Your task to perform on an android device: change alarm snooze length Image 0: 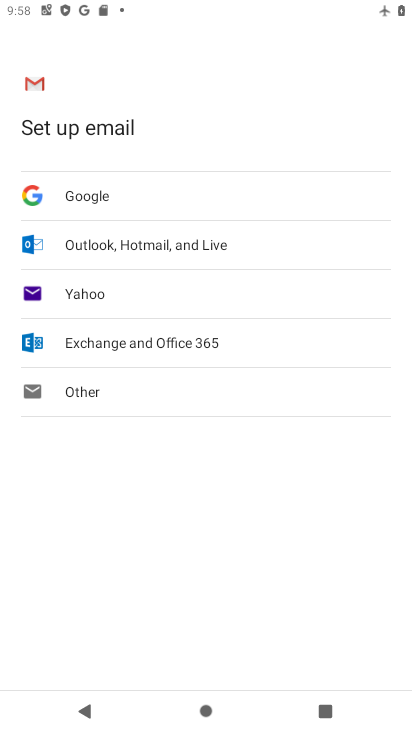
Step 0: press home button
Your task to perform on an android device: change alarm snooze length Image 1: 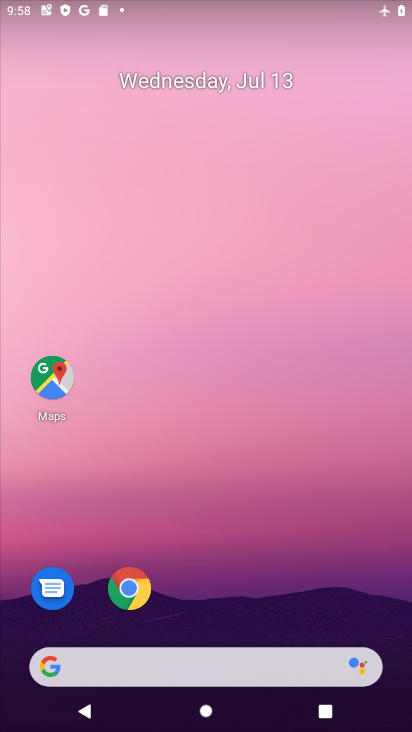
Step 1: drag from (237, 436) to (263, 106)
Your task to perform on an android device: change alarm snooze length Image 2: 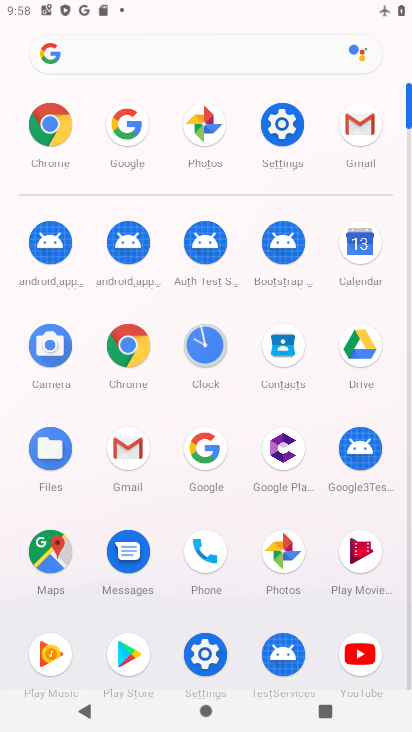
Step 2: click (210, 342)
Your task to perform on an android device: change alarm snooze length Image 3: 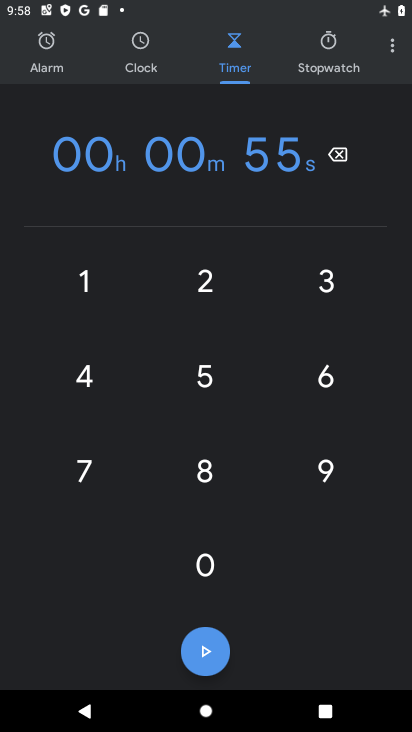
Step 3: click (390, 43)
Your task to perform on an android device: change alarm snooze length Image 4: 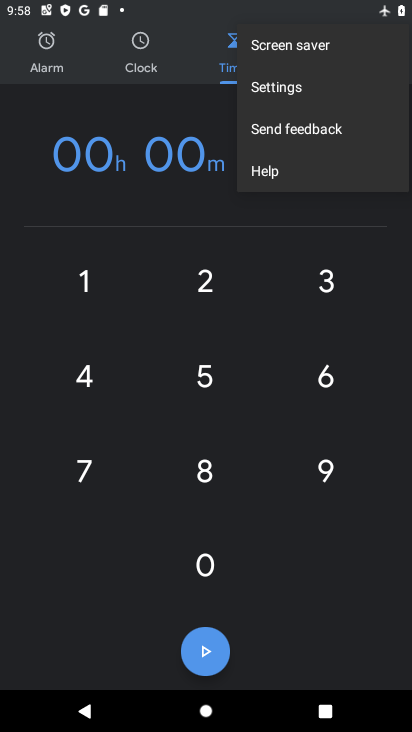
Step 4: click (274, 87)
Your task to perform on an android device: change alarm snooze length Image 5: 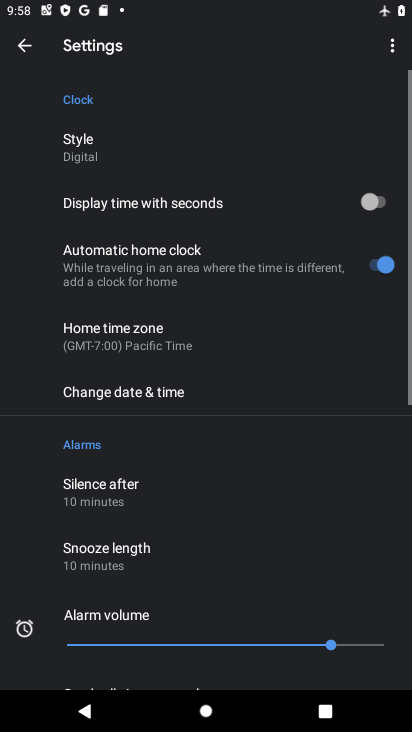
Step 5: click (148, 569)
Your task to perform on an android device: change alarm snooze length Image 6: 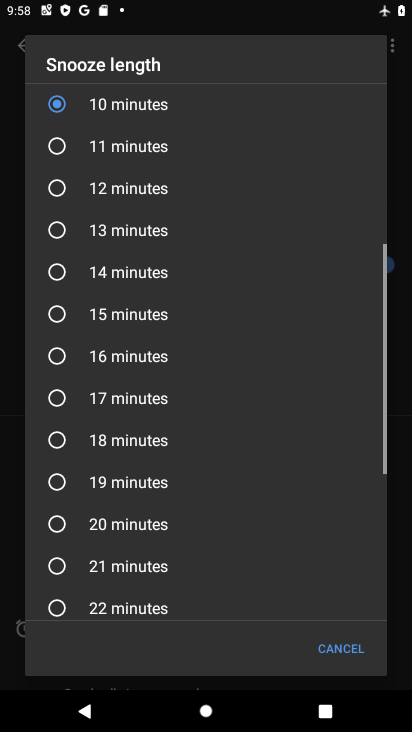
Step 6: click (57, 270)
Your task to perform on an android device: change alarm snooze length Image 7: 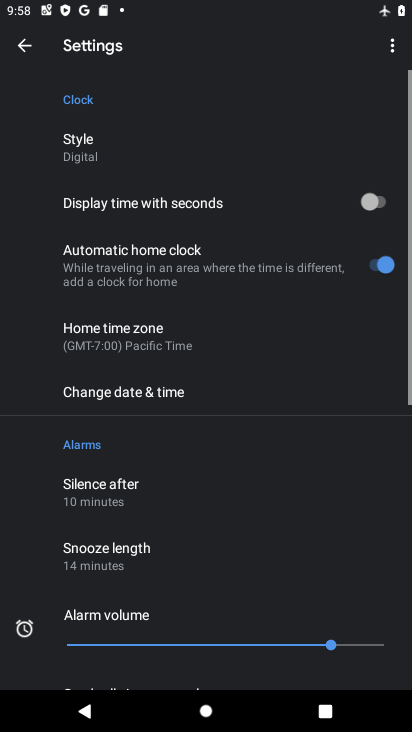
Step 7: task complete